Your task to perform on an android device: open app "Chime – Mobile Banking" (install if not already installed), go to login, and select forgot password Image 0: 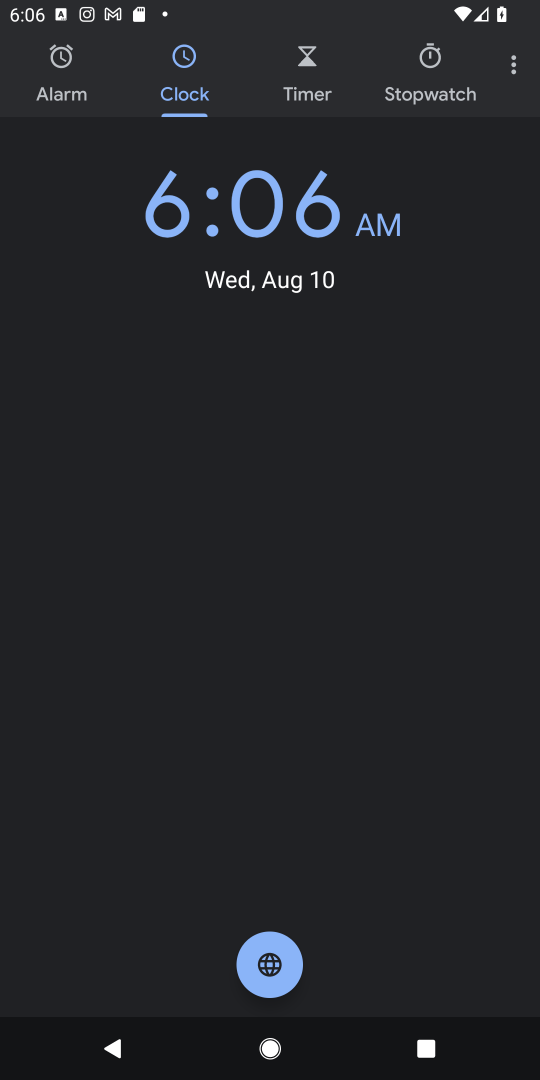
Step 0: press home button
Your task to perform on an android device: open app "Chime – Mobile Banking" (install if not already installed), go to login, and select forgot password Image 1: 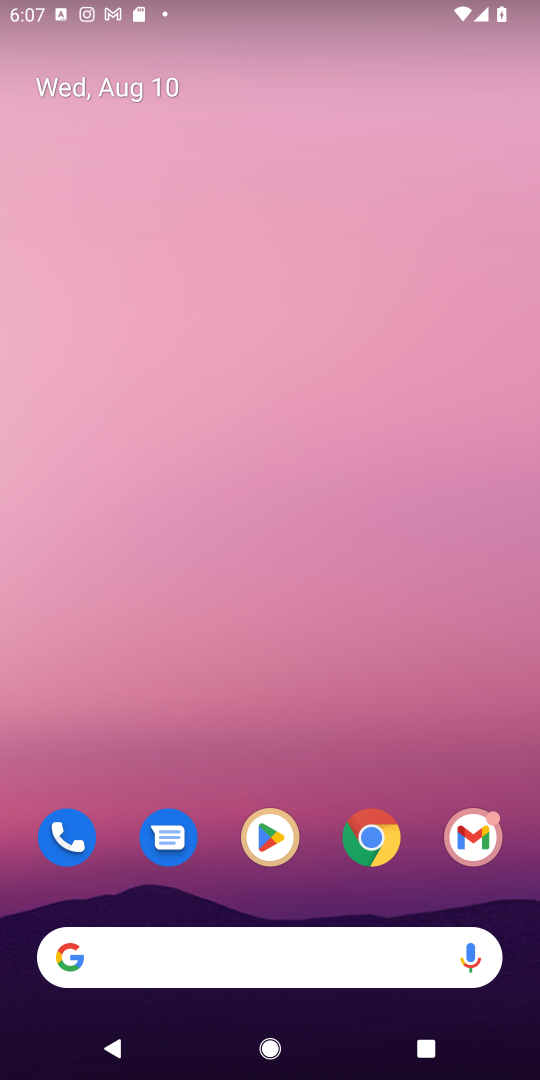
Step 1: click (273, 840)
Your task to perform on an android device: open app "Chime – Mobile Banking" (install if not already installed), go to login, and select forgot password Image 2: 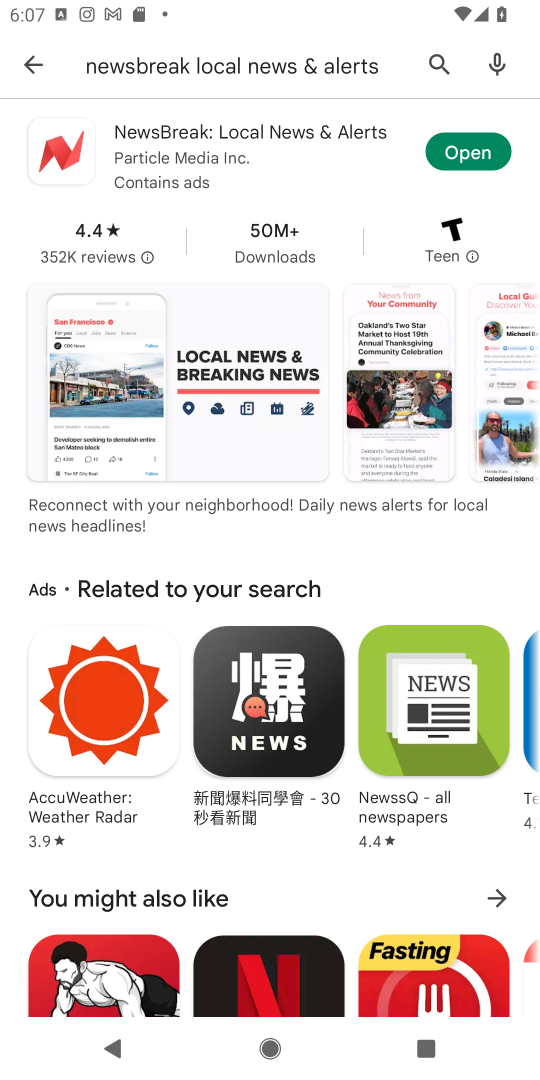
Step 2: click (437, 54)
Your task to perform on an android device: open app "Chime – Mobile Banking" (install if not already installed), go to login, and select forgot password Image 3: 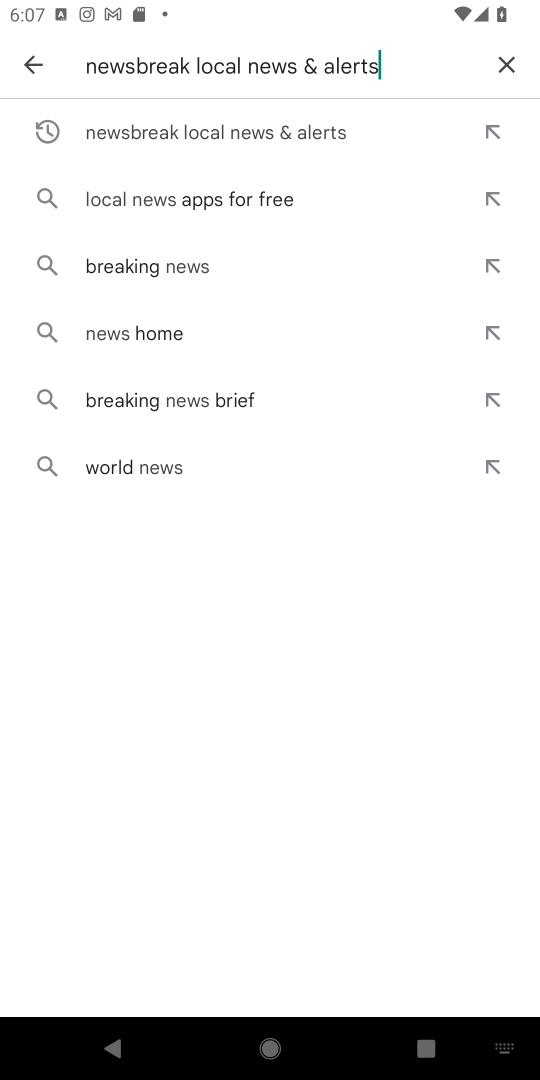
Step 3: click (501, 59)
Your task to perform on an android device: open app "Chime – Mobile Banking" (install if not already installed), go to login, and select forgot password Image 4: 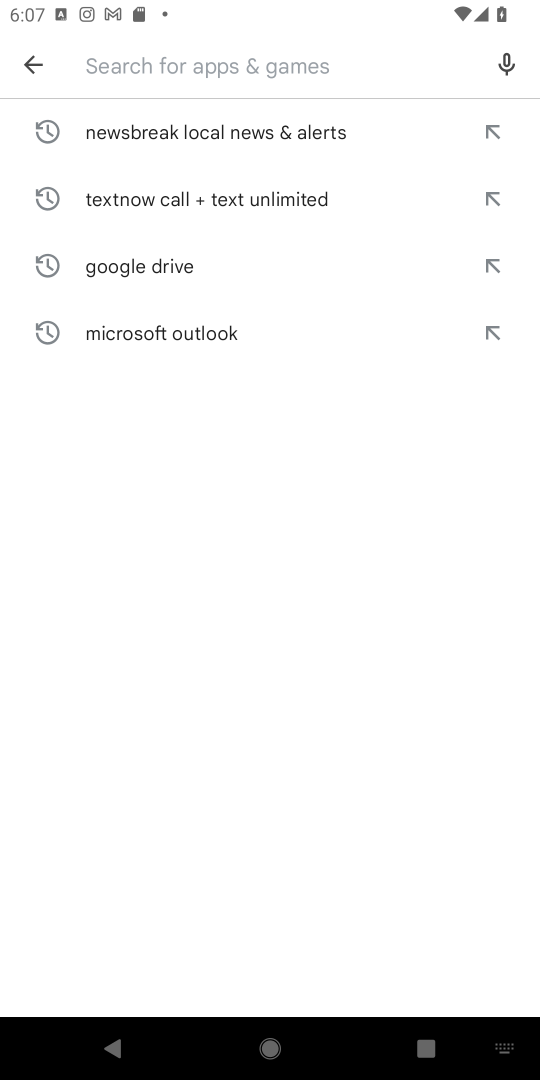
Step 4: type "Chime – Mobile Banking"
Your task to perform on an android device: open app "Chime – Mobile Banking" (install if not already installed), go to login, and select forgot password Image 5: 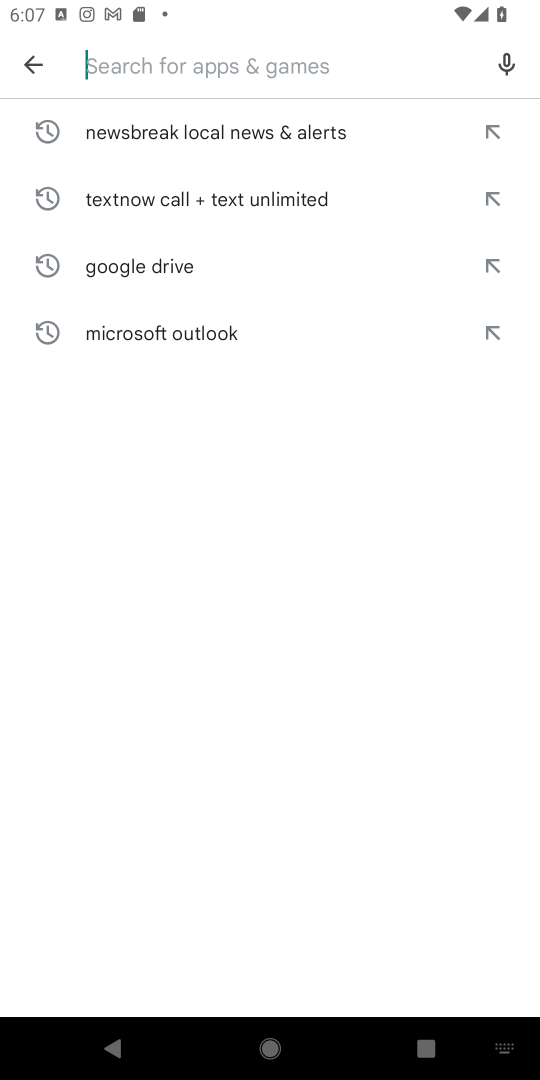
Step 5: type "Chime Mobile Banking"
Your task to perform on an android device: open app "Chime – Mobile Banking" (install if not already installed), go to login, and select forgot password Image 6: 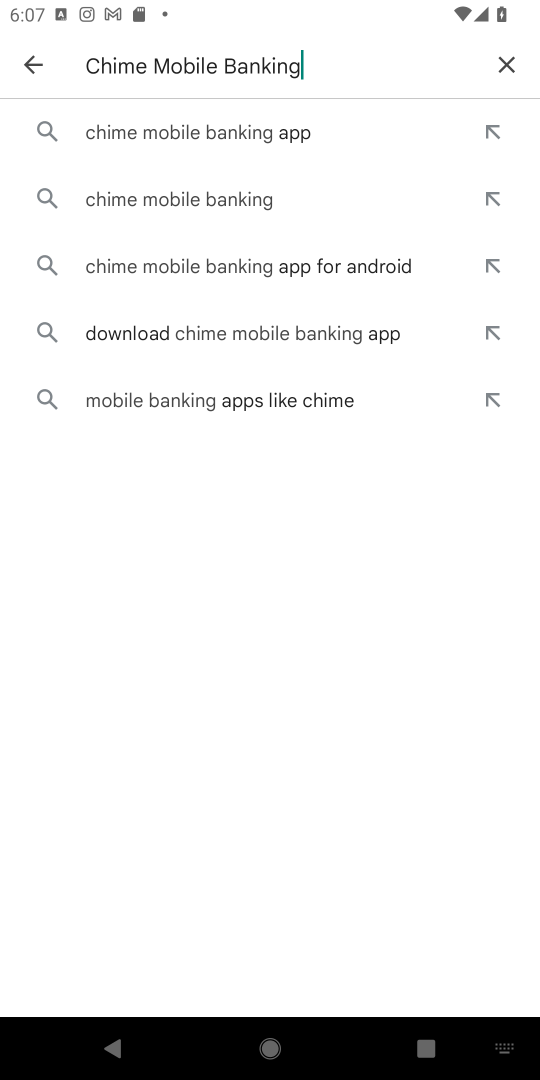
Step 6: click (166, 131)
Your task to perform on an android device: open app "Chime – Mobile Banking" (install if not already installed), go to login, and select forgot password Image 7: 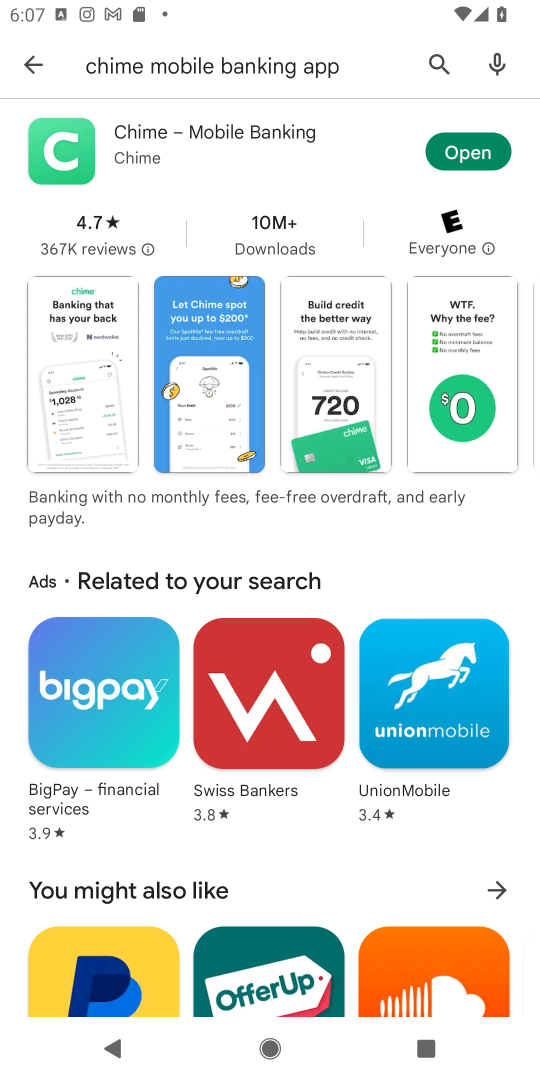
Step 7: click (460, 157)
Your task to perform on an android device: open app "Chime – Mobile Banking" (install if not already installed), go to login, and select forgot password Image 8: 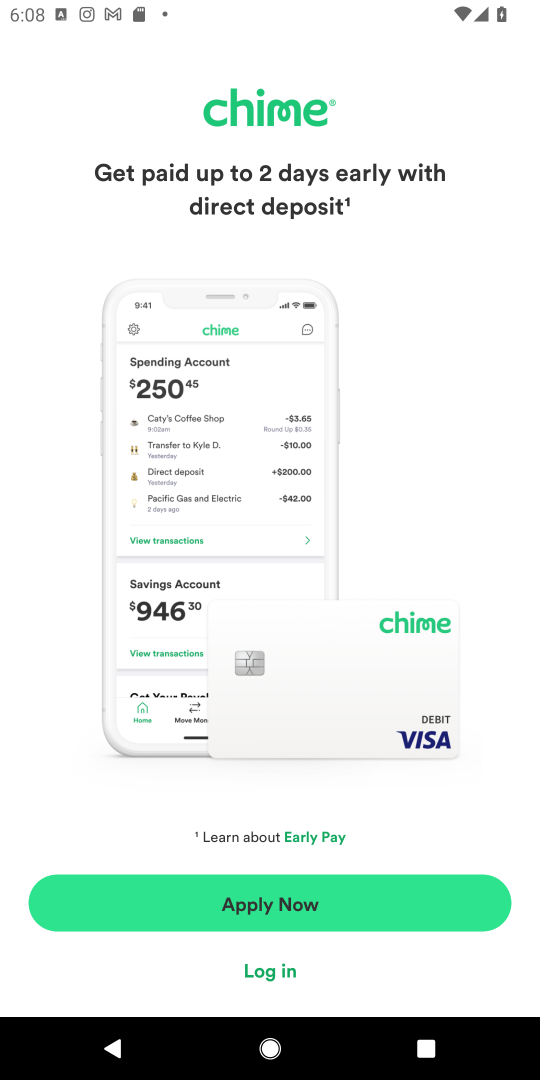
Step 8: click (262, 971)
Your task to perform on an android device: open app "Chime – Mobile Banking" (install if not already installed), go to login, and select forgot password Image 9: 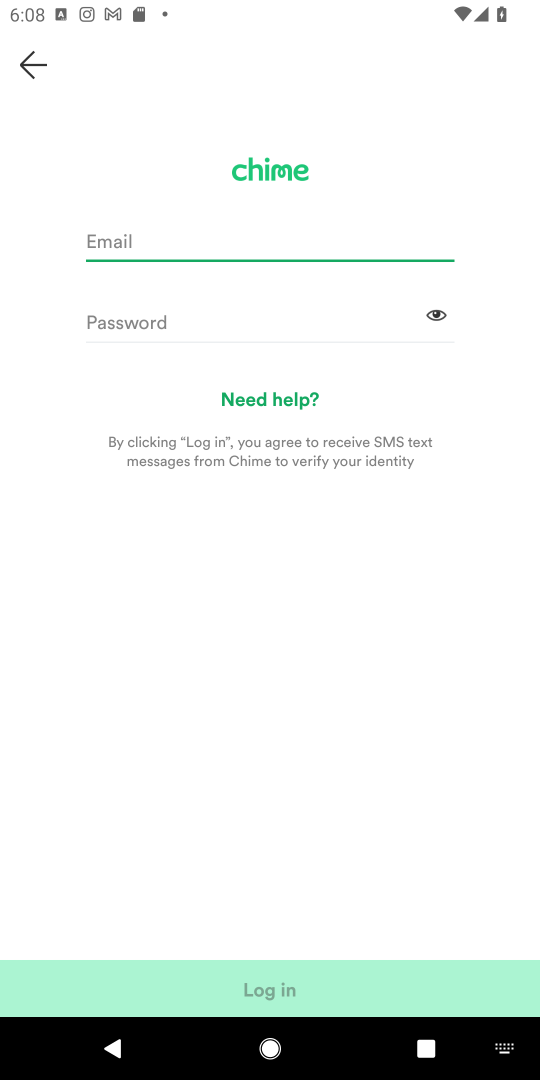
Step 9: task complete